Your task to perform on an android device: check the backup settings in the google photos Image 0: 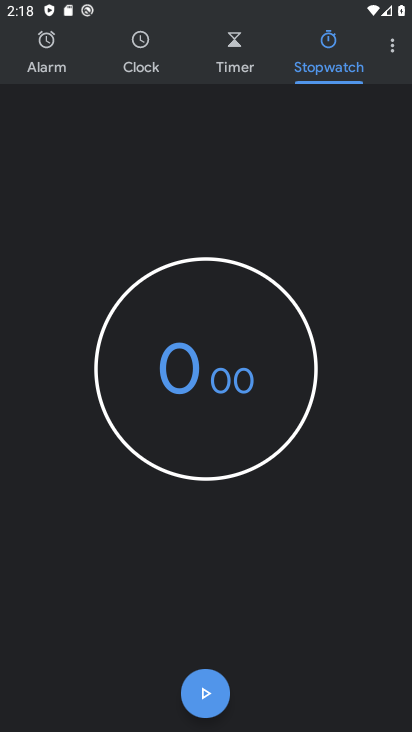
Step 0: press home button
Your task to perform on an android device: check the backup settings in the google photos Image 1: 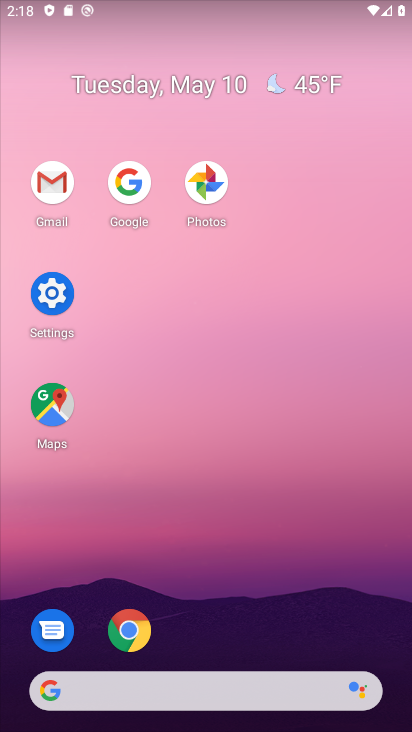
Step 1: click (211, 175)
Your task to perform on an android device: check the backup settings in the google photos Image 2: 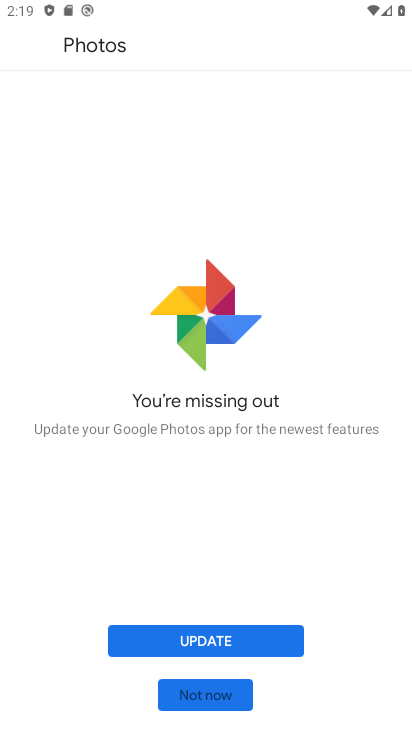
Step 2: click (212, 647)
Your task to perform on an android device: check the backup settings in the google photos Image 3: 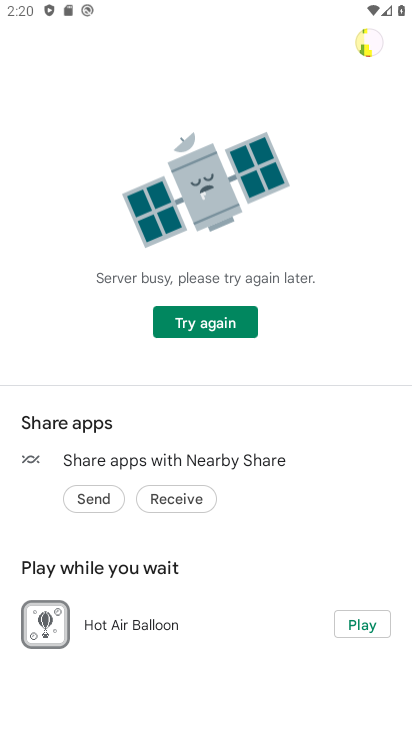
Step 3: task complete